Your task to perform on an android device: What's the weather like in Tokyo? Image 0: 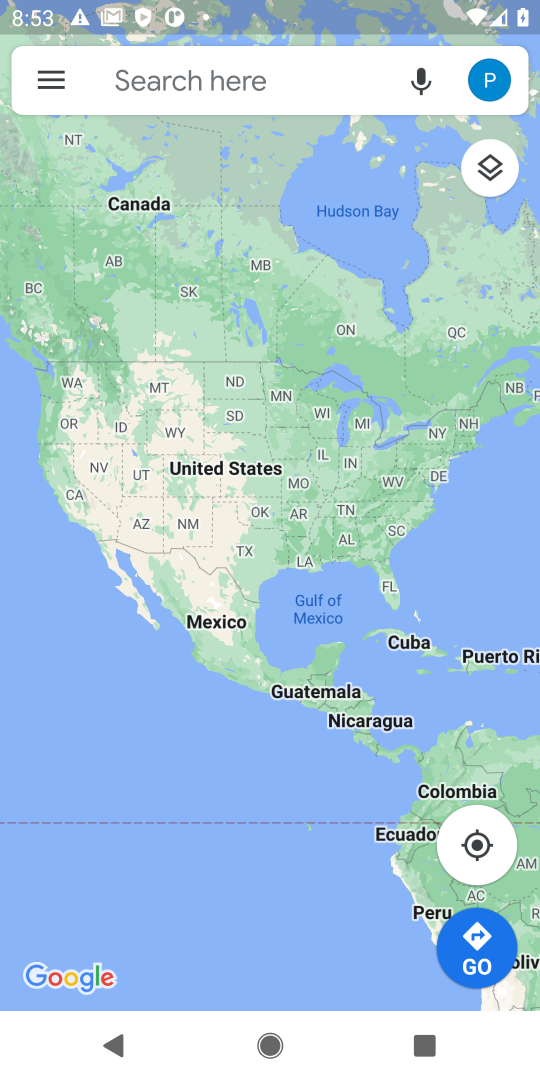
Step 0: press home button
Your task to perform on an android device: What's the weather like in Tokyo? Image 1: 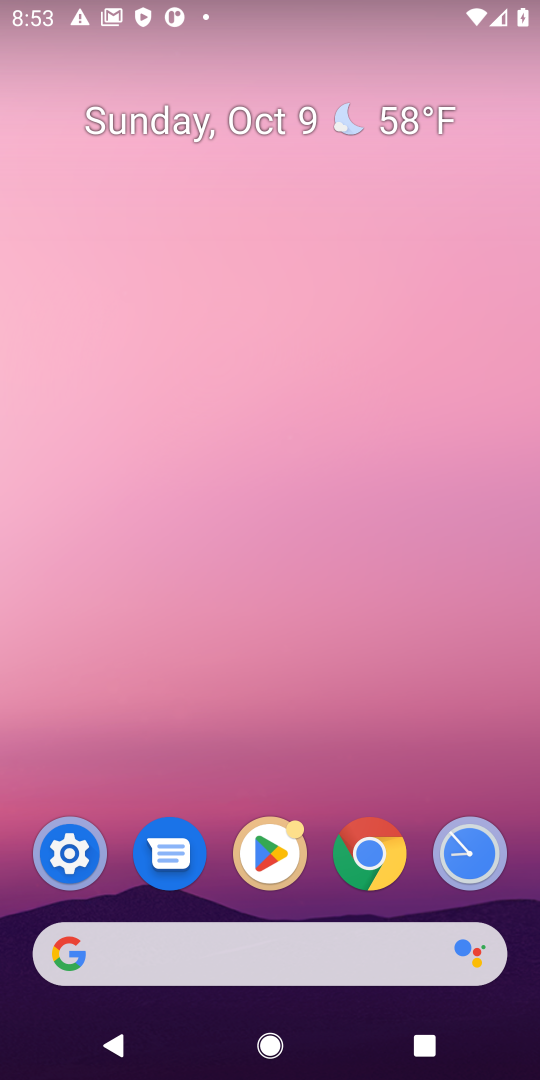
Step 1: click (362, 866)
Your task to perform on an android device: What's the weather like in Tokyo? Image 2: 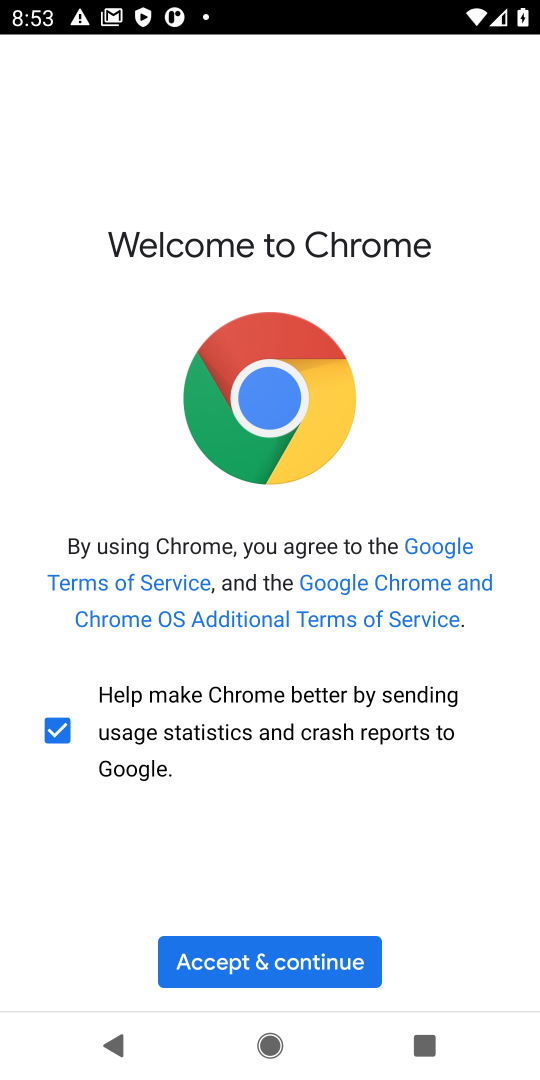
Step 2: click (342, 963)
Your task to perform on an android device: What's the weather like in Tokyo? Image 3: 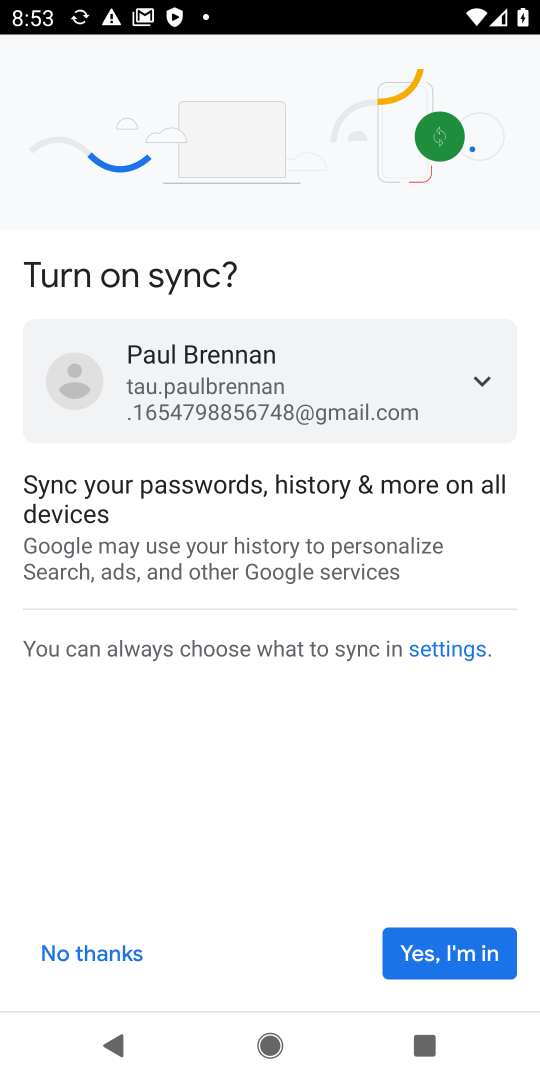
Step 3: click (478, 955)
Your task to perform on an android device: What's the weather like in Tokyo? Image 4: 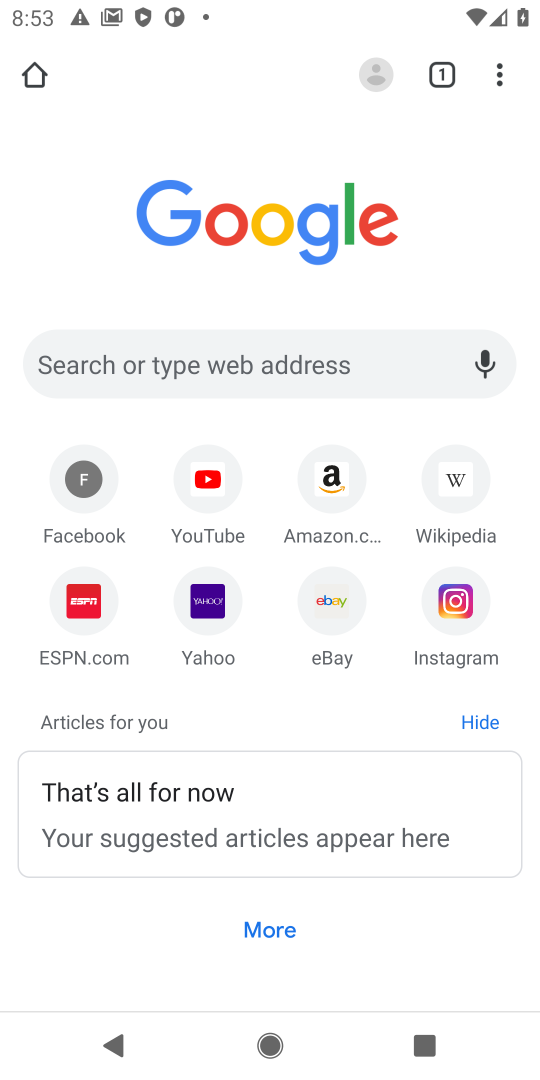
Step 4: click (224, 374)
Your task to perform on an android device: What's the weather like in Tokyo? Image 5: 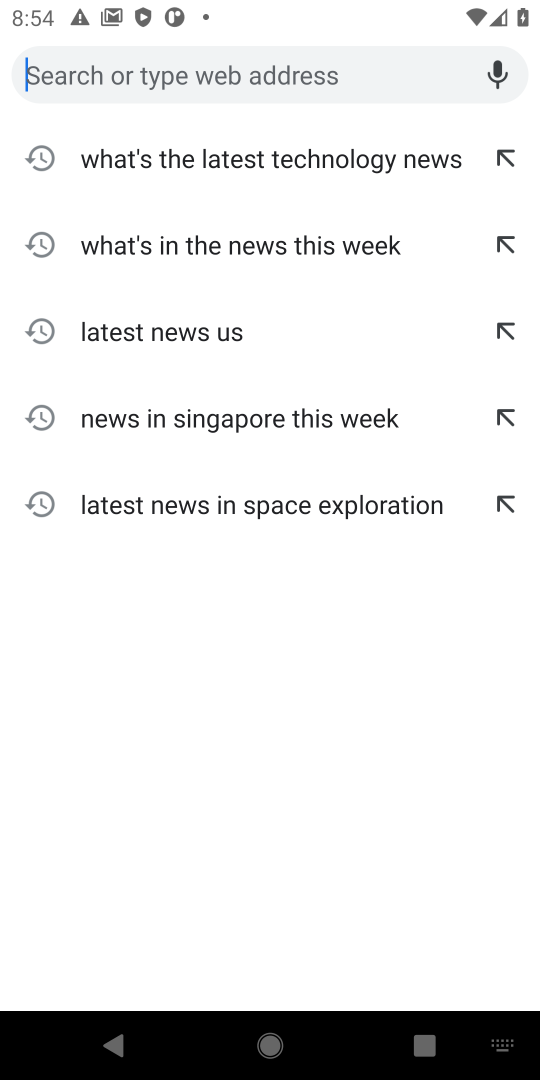
Step 5: type "weather in tokyo"
Your task to perform on an android device: What's the weather like in Tokyo? Image 6: 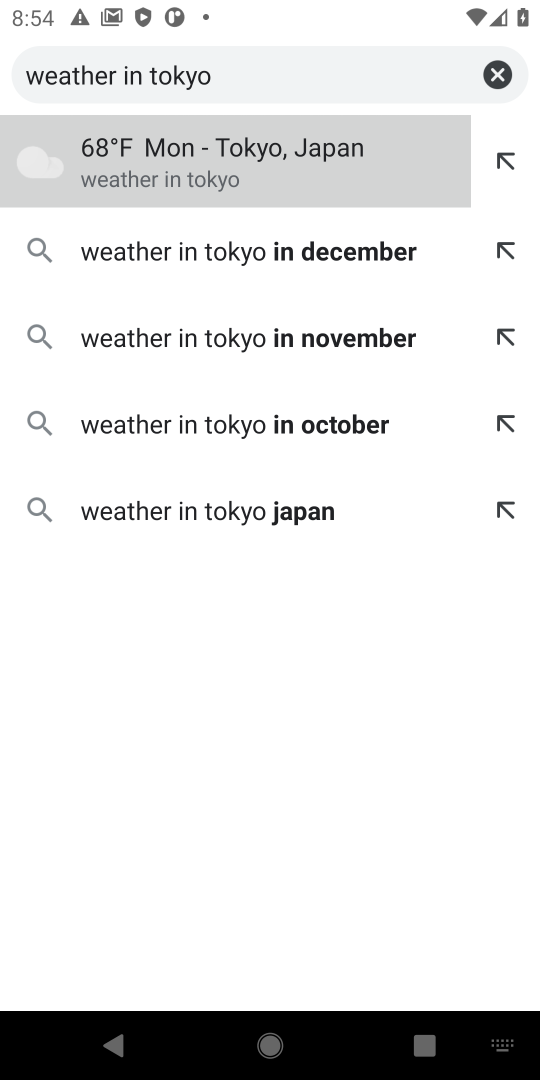
Step 6: click (371, 159)
Your task to perform on an android device: What's the weather like in Tokyo? Image 7: 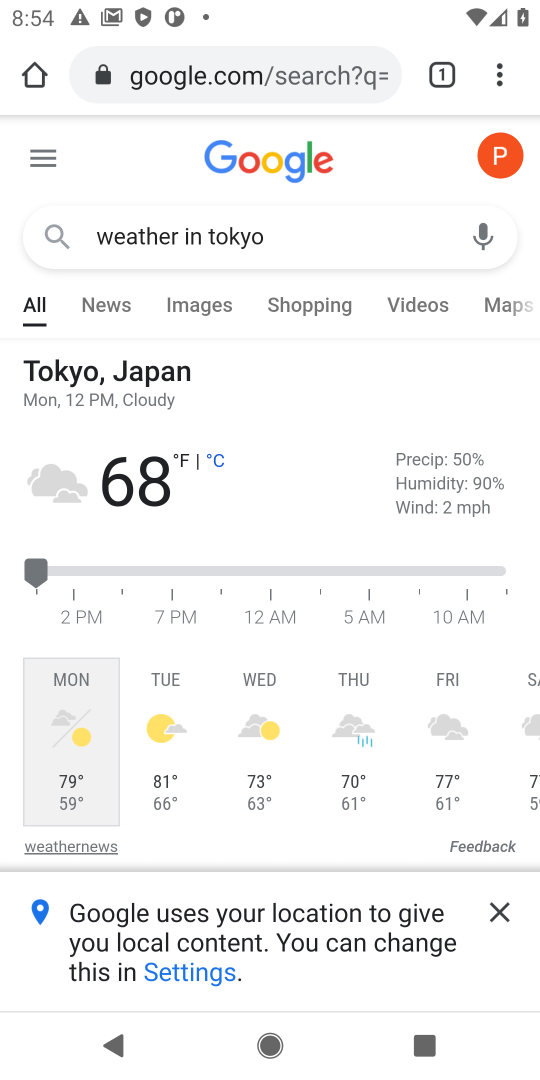
Step 7: task complete